Your task to perform on an android device: open the mobile data screen to see how much data has been used Image 0: 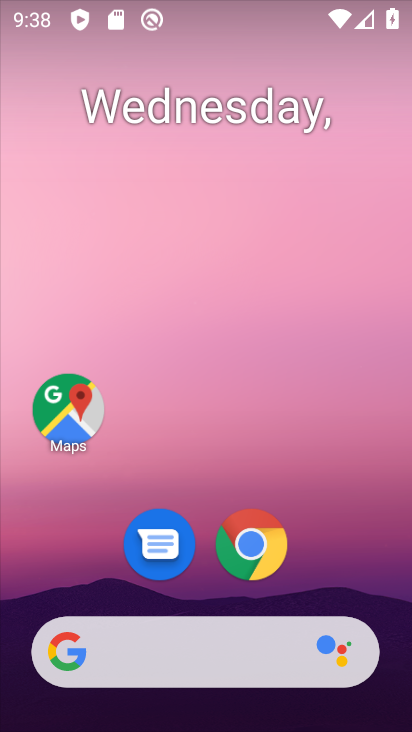
Step 0: drag from (364, 554) to (363, 8)
Your task to perform on an android device: open the mobile data screen to see how much data has been used Image 1: 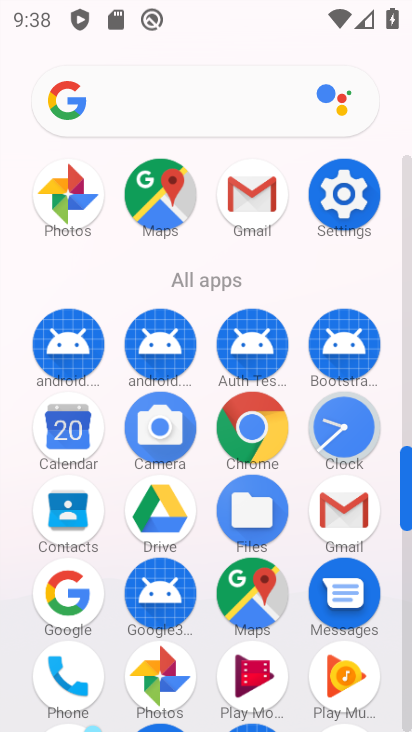
Step 1: click (339, 209)
Your task to perform on an android device: open the mobile data screen to see how much data has been used Image 2: 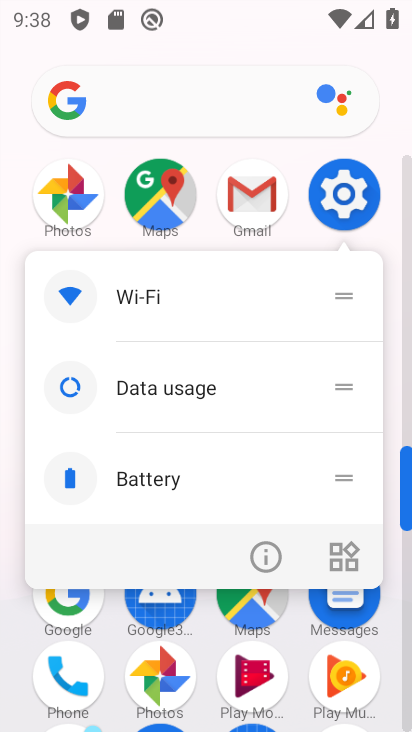
Step 2: click (337, 194)
Your task to perform on an android device: open the mobile data screen to see how much data has been used Image 3: 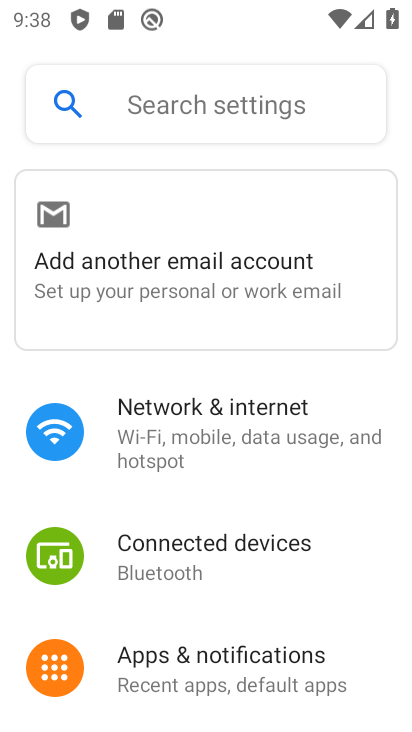
Step 3: click (244, 414)
Your task to perform on an android device: open the mobile data screen to see how much data has been used Image 4: 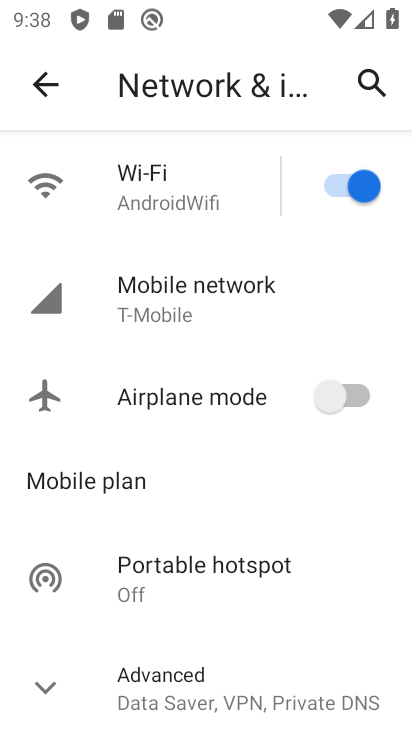
Step 4: click (177, 308)
Your task to perform on an android device: open the mobile data screen to see how much data has been used Image 5: 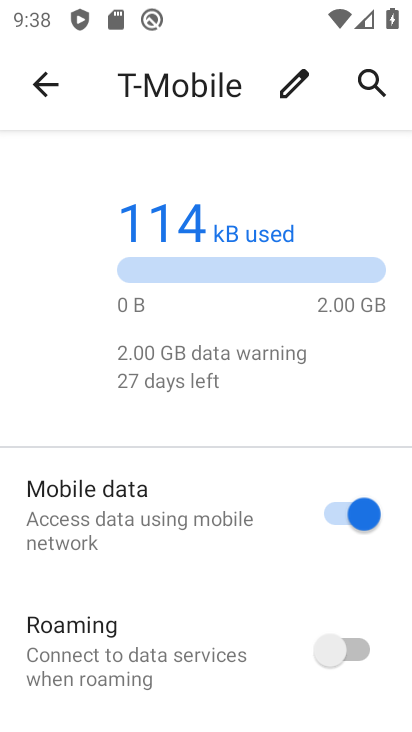
Step 5: drag from (190, 573) to (200, 243)
Your task to perform on an android device: open the mobile data screen to see how much data has been used Image 6: 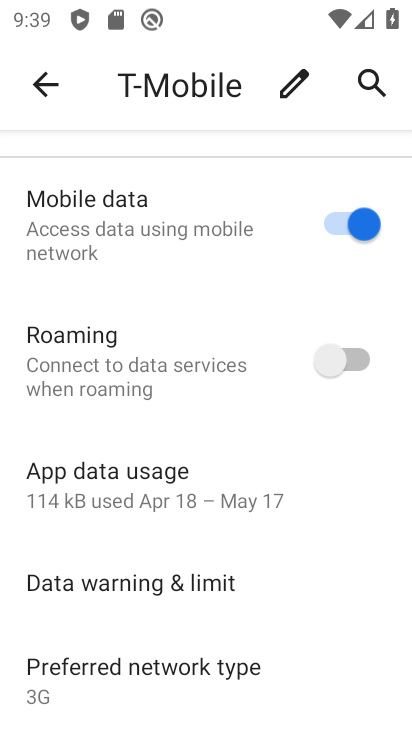
Step 6: click (82, 483)
Your task to perform on an android device: open the mobile data screen to see how much data has been used Image 7: 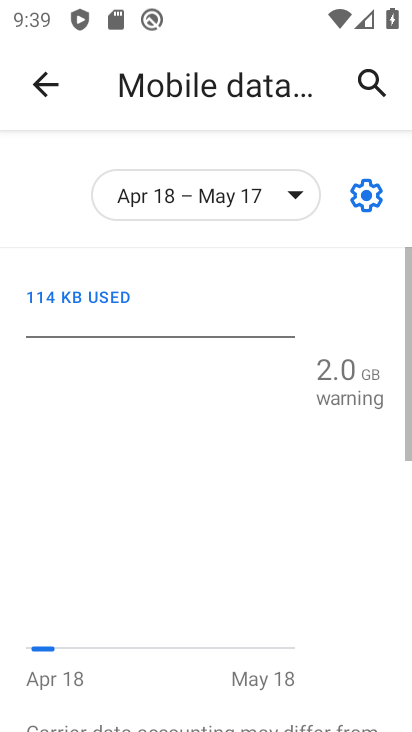
Step 7: task complete